Your task to perform on an android device: Show me recent news Image 0: 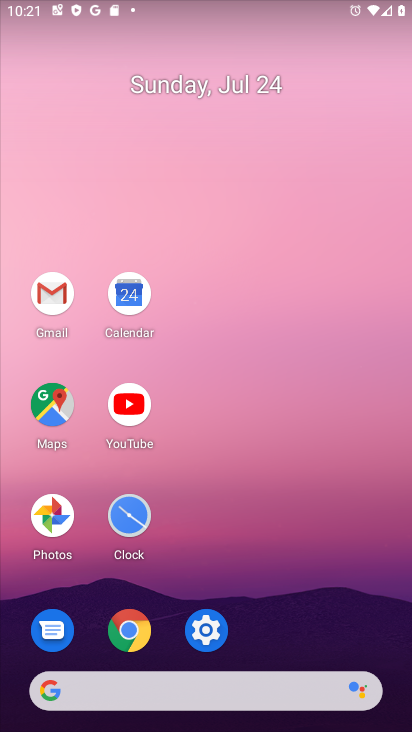
Step 0: drag from (10, 167) to (387, 238)
Your task to perform on an android device: Show me recent news Image 1: 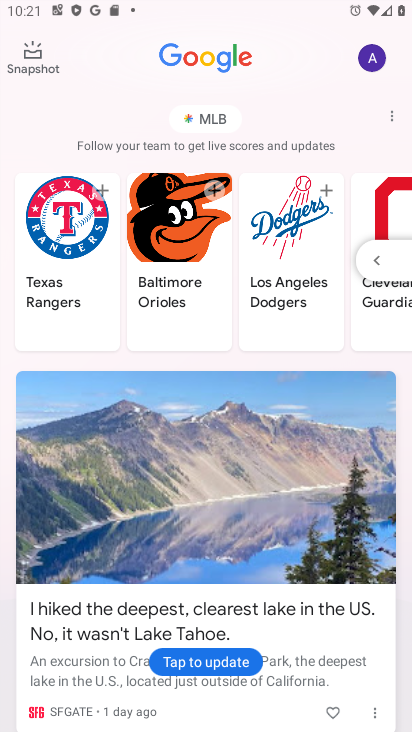
Step 1: task complete